Your task to perform on an android device: open chrome and create a bookmark for the current page Image 0: 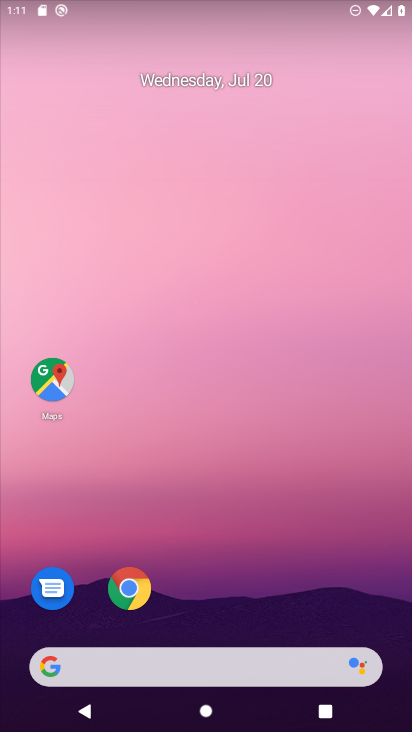
Step 0: click (136, 590)
Your task to perform on an android device: open chrome and create a bookmark for the current page Image 1: 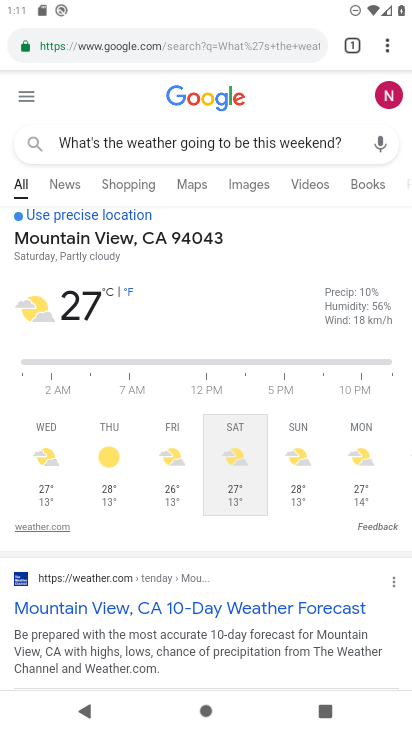
Step 1: click (393, 46)
Your task to perform on an android device: open chrome and create a bookmark for the current page Image 2: 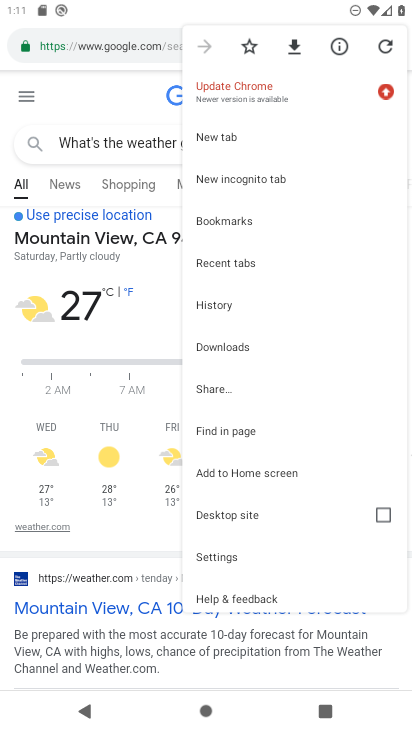
Step 2: click (252, 46)
Your task to perform on an android device: open chrome and create a bookmark for the current page Image 3: 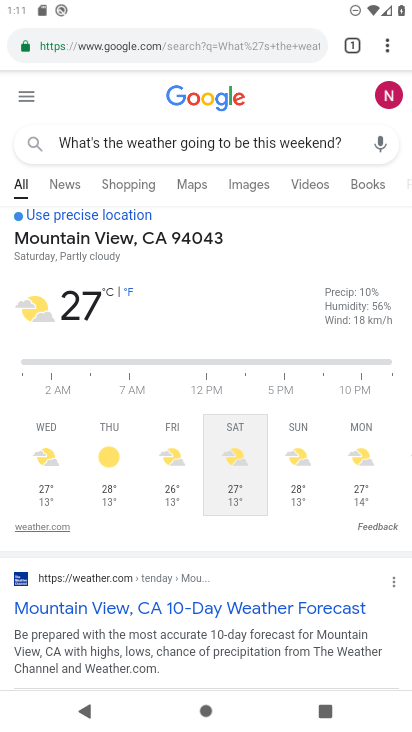
Step 3: task complete